Your task to perform on an android device: Go to Google Image 0: 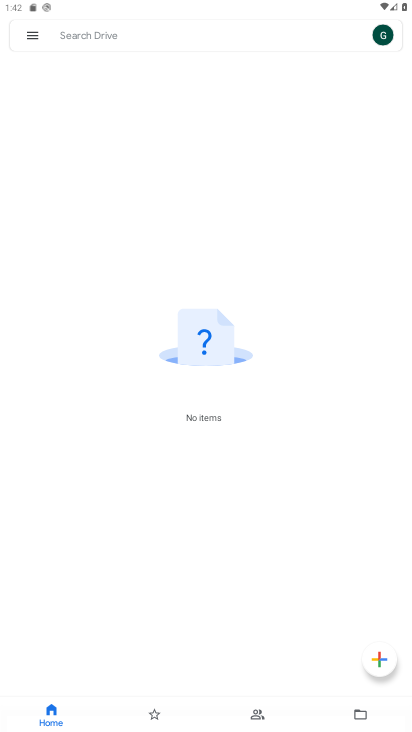
Step 0: press home button
Your task to perform on an android device: Go to Google Image 1: 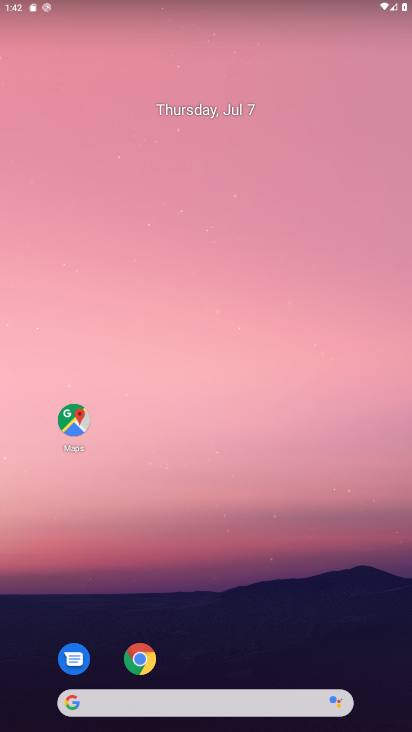
Step 1: drag from (209, 667) to (215, 166)
Your task to perform on an android device: Go to Google Image 2: 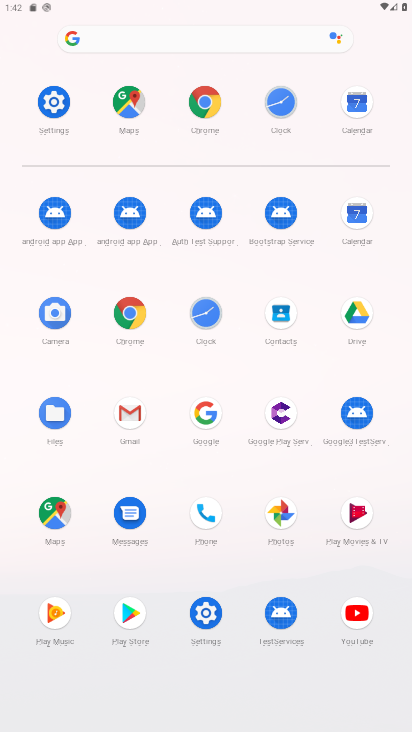
Step 2: click (201, 416)
Your task to perform on an android device: Go to Google Image 3: 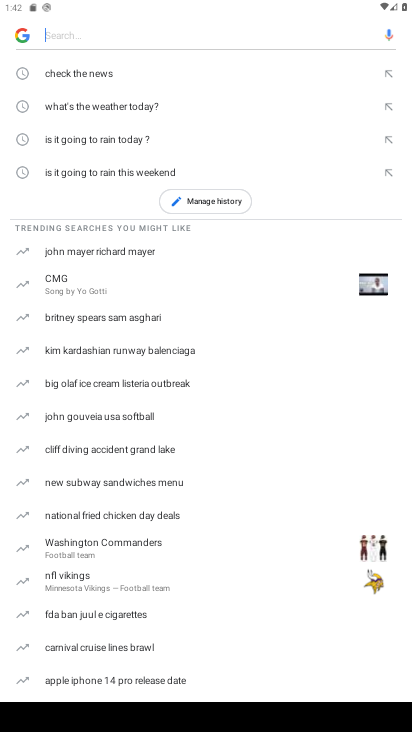
Step 3: task complete